Your task to perform on an android device: Open eBay Image 0: 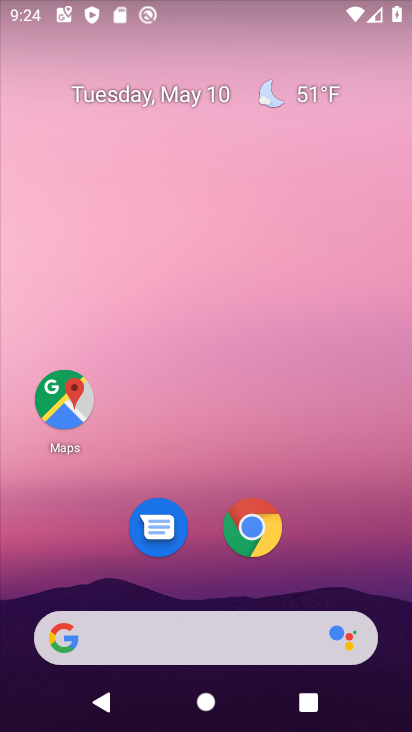
Step 0: drag from (223, 722) to (172, 117)
Your task to perform on an android device: Open eBay Image 1: 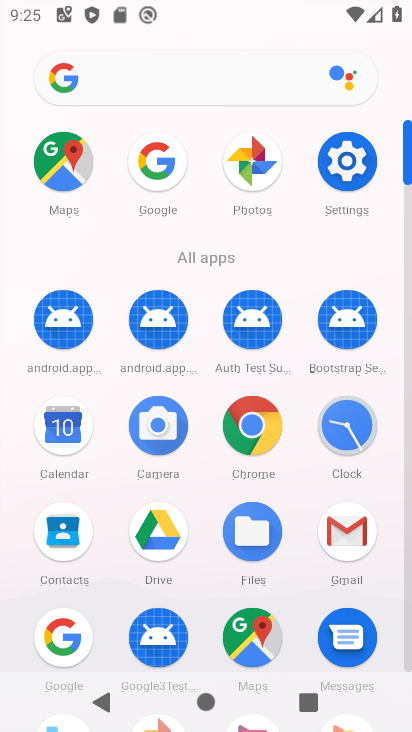
Step 1: click (256, 431)
Your task to perform on an android device: Open eBay Image 2: 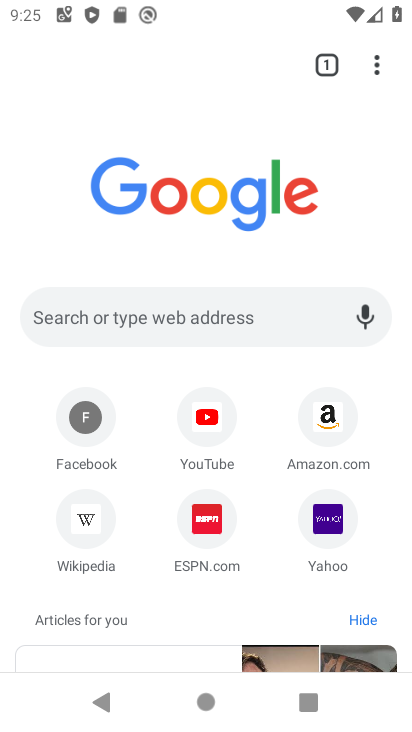
Step 2: click (210, 316)
Your task to perform on an android device: Open eBay Image 3: 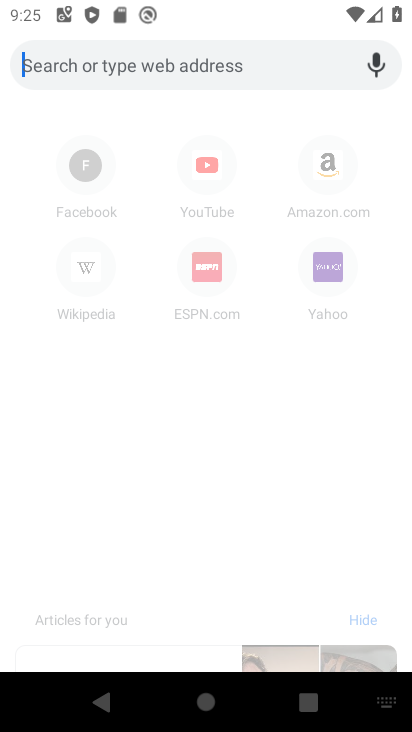
Step 3: type "eBay"
Your task to perform on an android device: Open eBay Image 4: 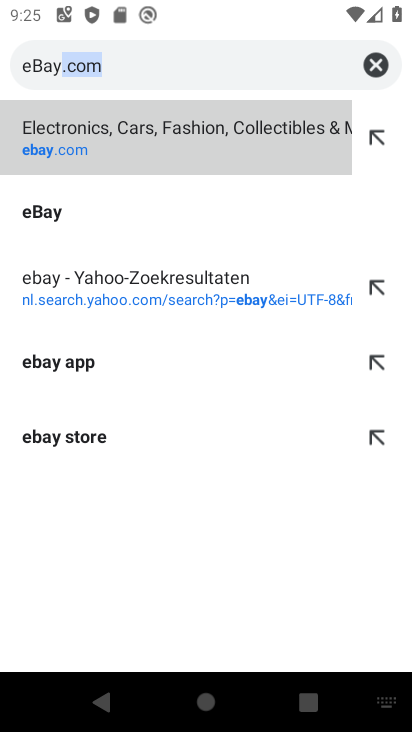
Step 4: click (73, 139)
Your task to perform on an android device: Open eBay Image 5: 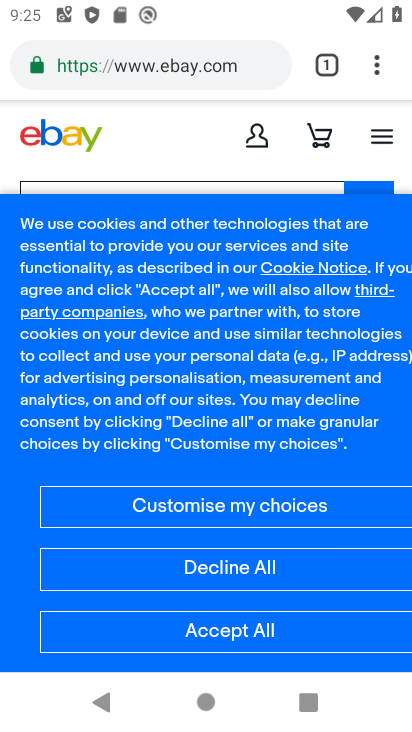
Step 5: task complete